Your task to perform on an android device: check storage Image 0: 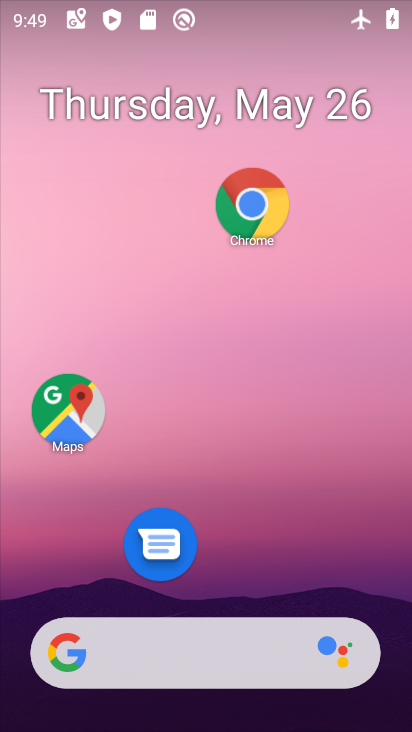
Step 0: press home button
Your task to perform on an android device: check storage Image 1: 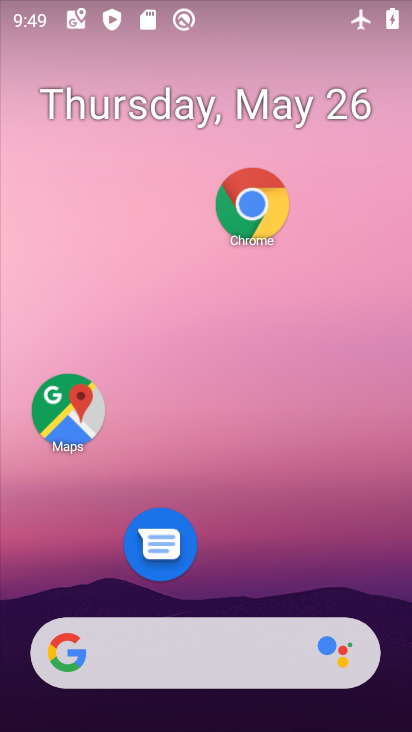
Step 1: drag from (226, 587) to (238, 119)
Your task to perform on an android device: check storage Image 2: 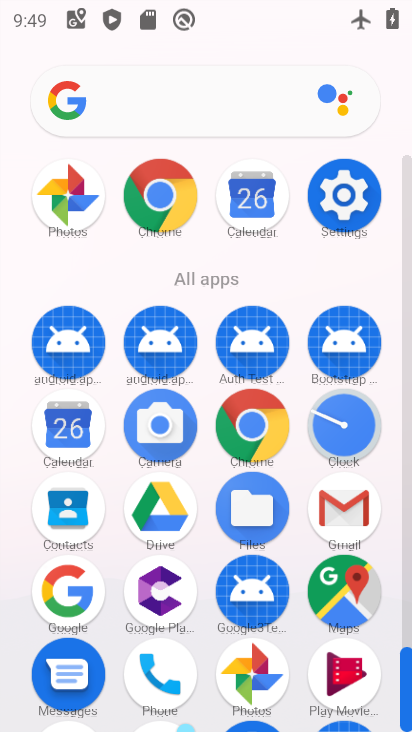
Step 2: click (341, 202)
Your task to perform on an android device: check storage Image 3: 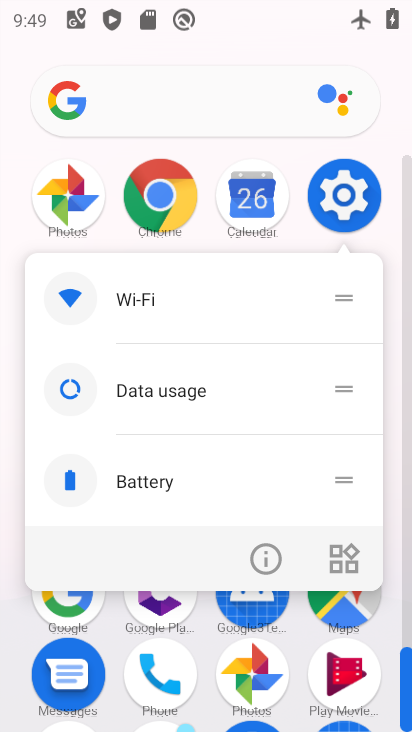
Step 3: click (337, 190)
Your task to perform on an android device: check storage Image 4: 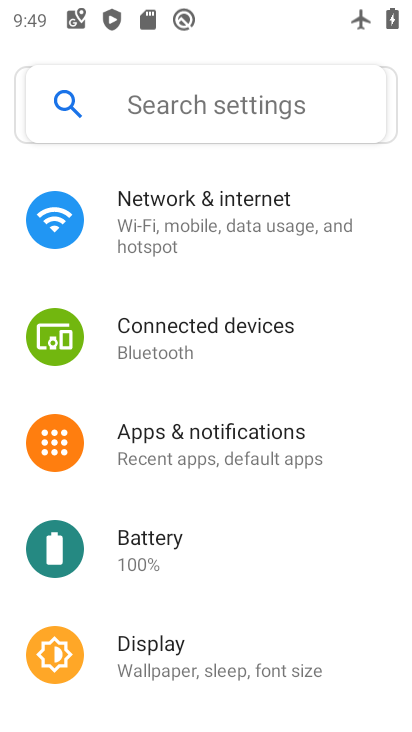
Step 4: drag from (224, 579) to (259, 168)
Your task to perform on an android device: check storage Image 5: 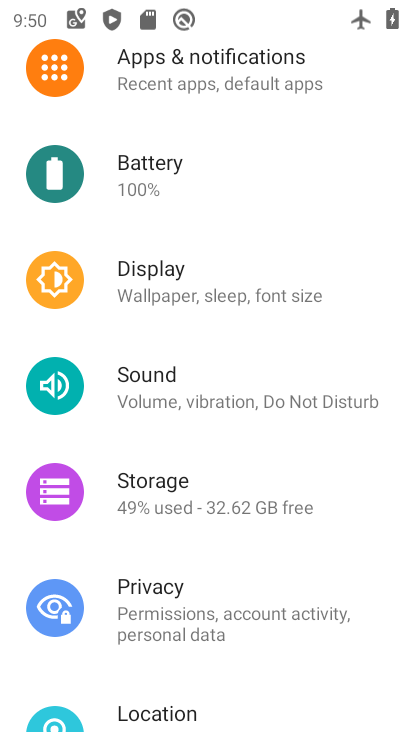
Step 5: click (184, 486)
Your task to perform on an android device: check storage Image 6: 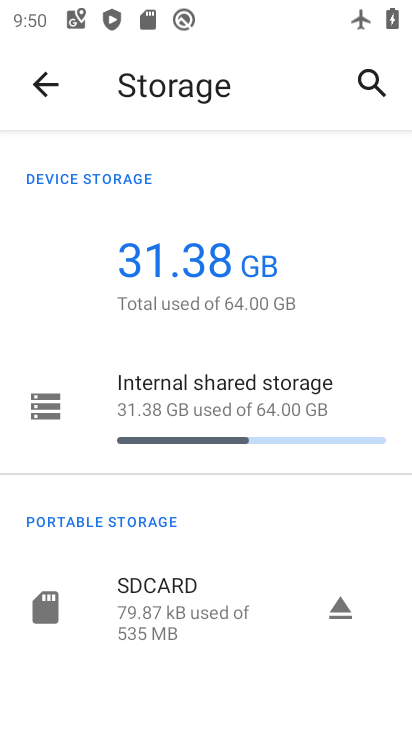
Step 6: task complete